Your task to perform on an android device: manage bookmarks in the chrome app Image 0: 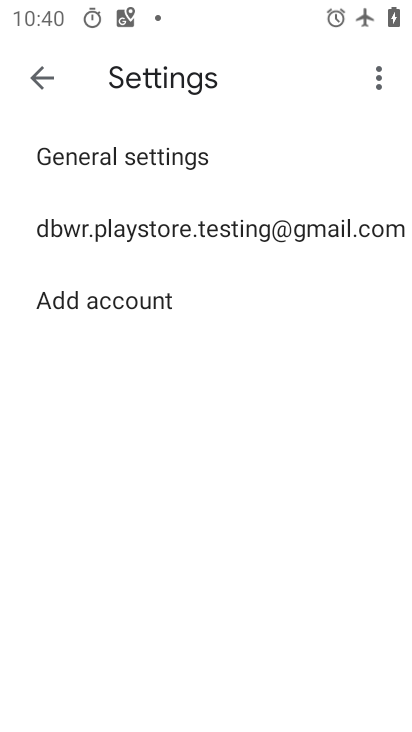
Step 0: press home button
Your task to perform on an android device: manage bookmarks in the chrome app Image 1: 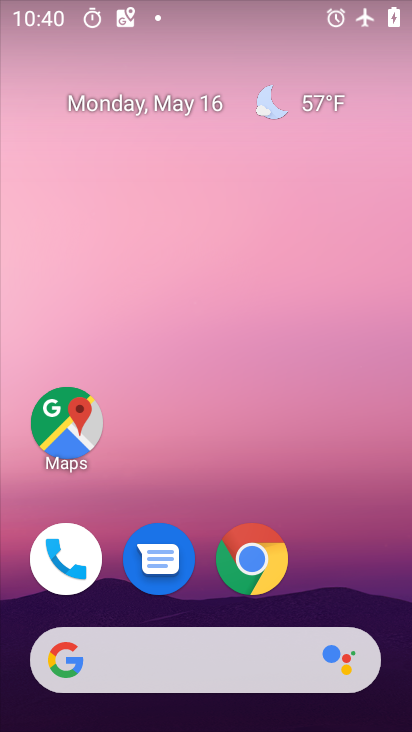
Step 1: click (263, 555)
Your task to perform on an android device: manage bookmarks in the chrome app Image 2: 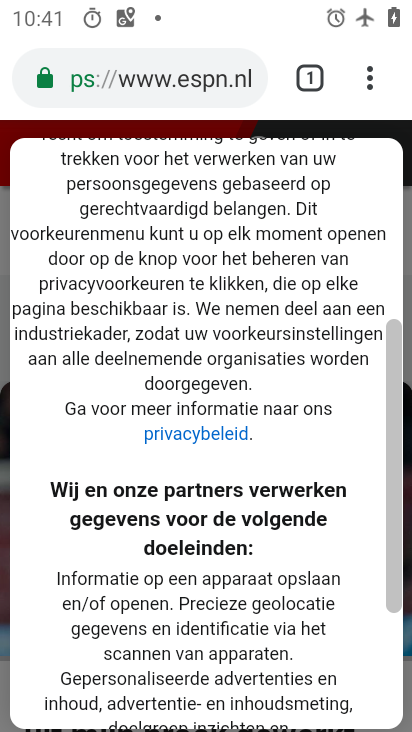
Step 2: drag from (372, 61) to (219, 286)
Your task to perform on an android device: manage bookmarks in the chrome app Image 3: 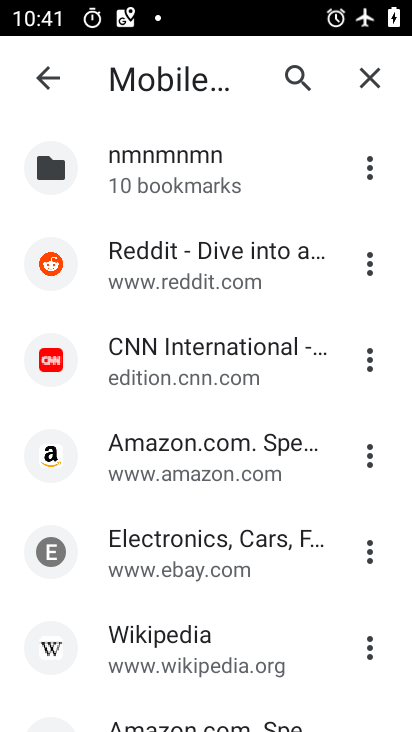
Step 3: click (370, 546)
Your task to perform on an android device: manage bookmarks in the chrome app Image 4: 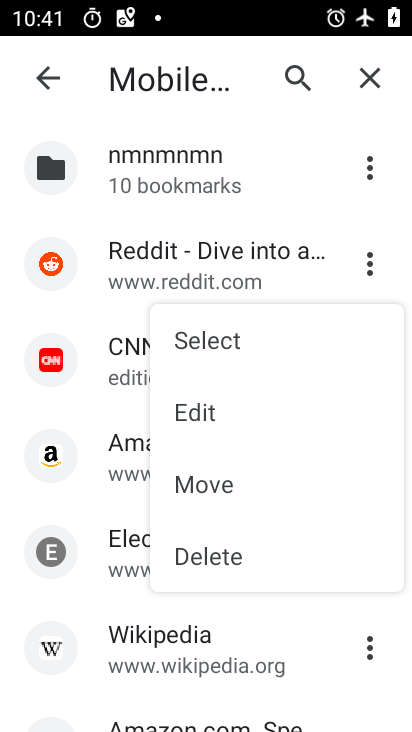
Step 4: drag from (364, 547) to (190, 545)
Your task to perform on an android device: manage bookmarks in the chrome app Image 5: 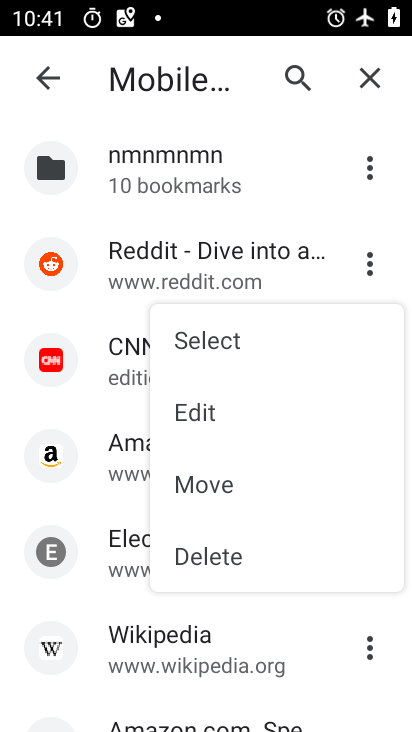
Step 5: click (195, 546)
Your task to perform on an android device: manage bookmarks in the chrome app Image 6: 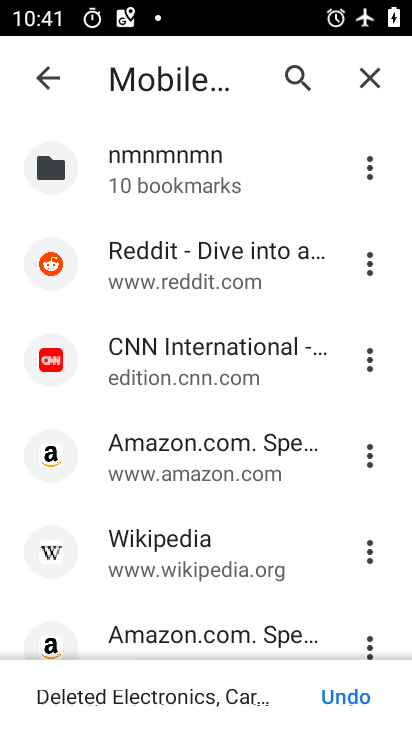
Step 6: task complete